Your task to perform on an android device: Search for the most popular books on Goodreads Image 0: 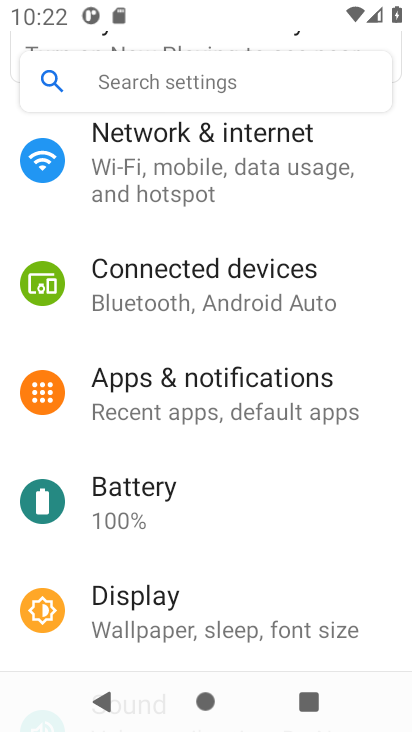
Step 0: press home button
Your task to perform on an android device: Search for the most popular books on Goodreads Image 1: 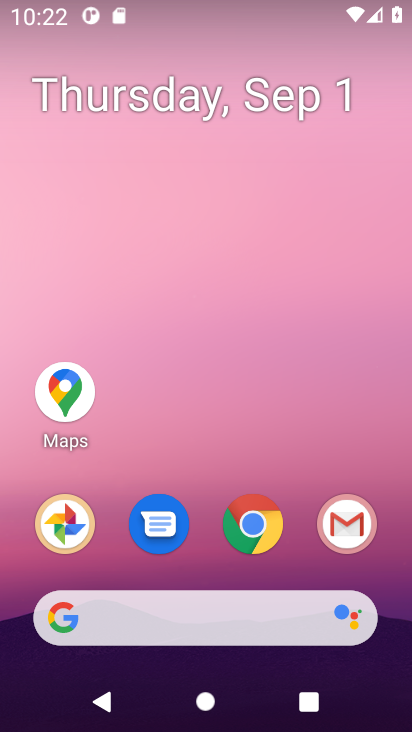
Step 1: drag from (390, 603) to (406, 78)
Your task to perform on an android device: Search for the most popular books on Goodreads Image 2: 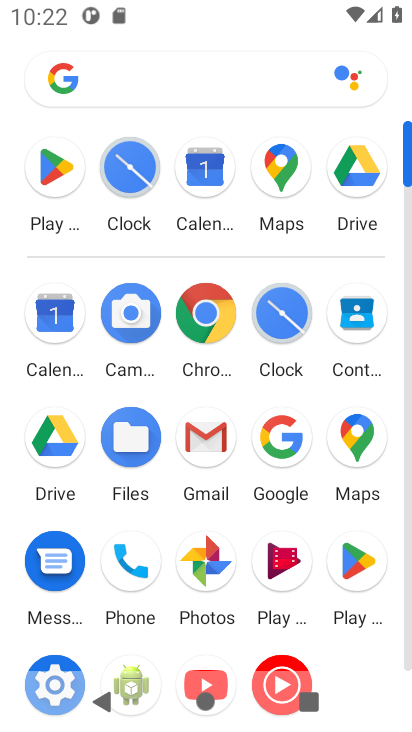
Step 2: click (207, 312)
Your task to perform on an android device: Search for the most popular books on Goodreads Image 3: 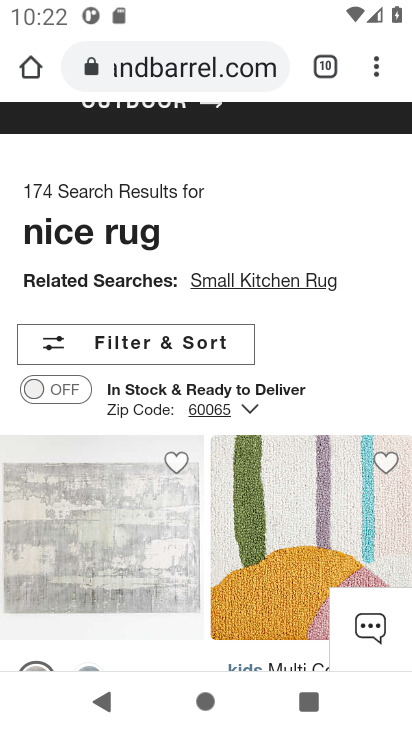
Step 3: click (376, 66)
Your task to perform on an android device: Search for the most popular books on Goodreads Image 4: 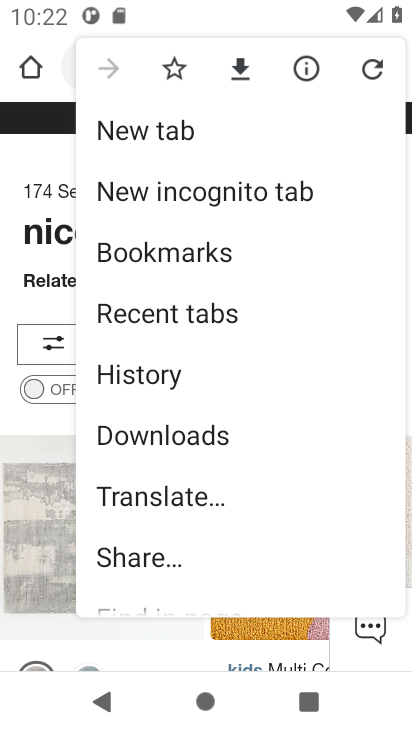
Step 4: click (181, 128)
Your task to perform on an android device: Search for the most popular books on Goodreads Image 5: 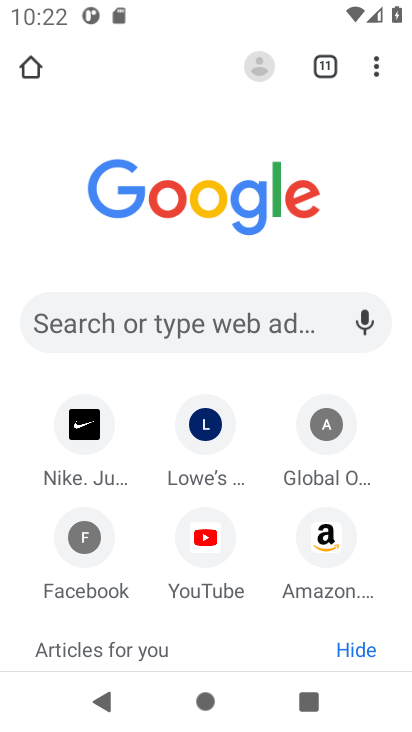
Step 5: click (219, 319)
Your task to perform on an android device: Search for the most popular books on Goodreads Image 6: 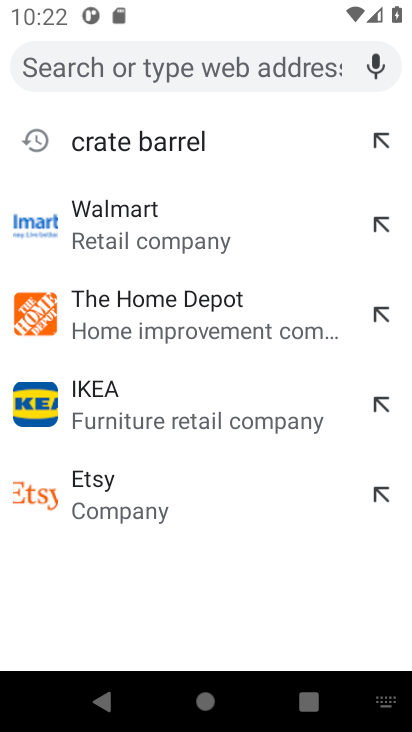
Step 6: press enter
Your task to perform on an android device: Search for the most popular books on Goodreads Image 7: 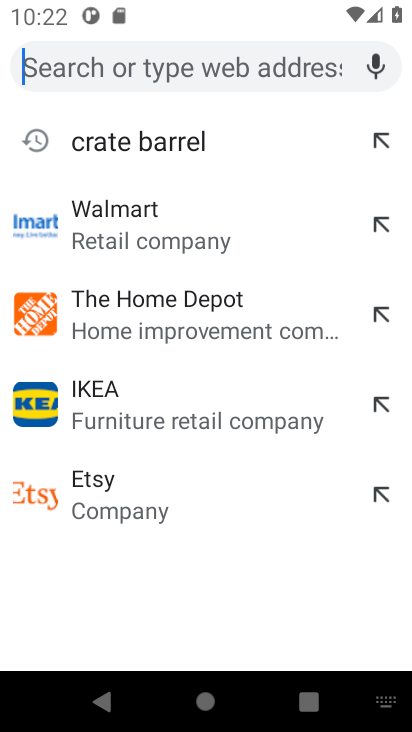
Step 7: type "goodreads"
Your task to perform on an android device: Search for the most popular books on Goodreads Image 8: 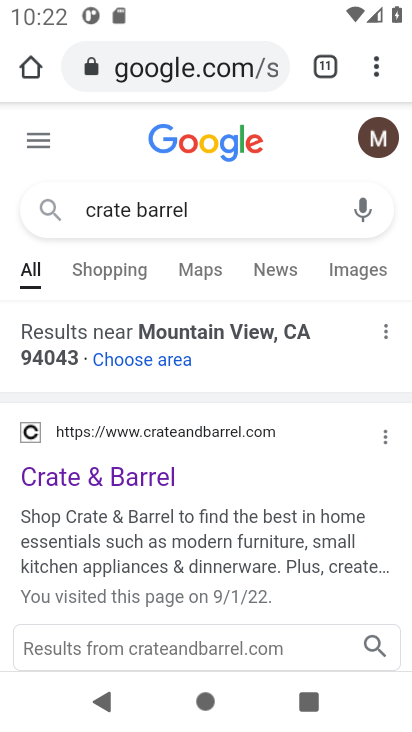
Step 8: click (213, 209)
Your task to perform on an android device: Search for the most popular books on Goodreads Image 9: 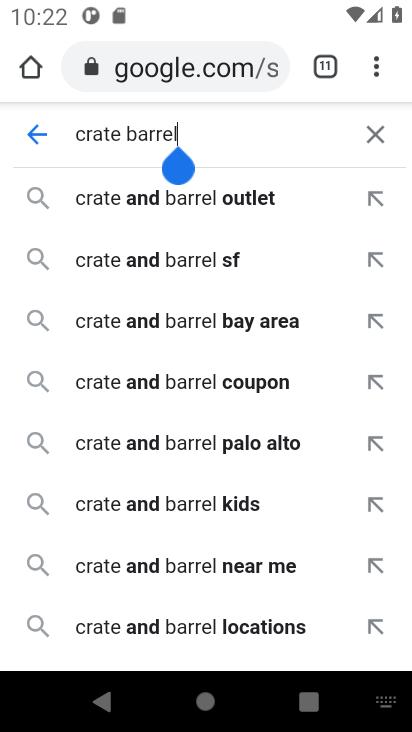
Step 9: click (376, 128)
Your task to perform on an android device: Search for the most popular books on Goodreads Image 10: 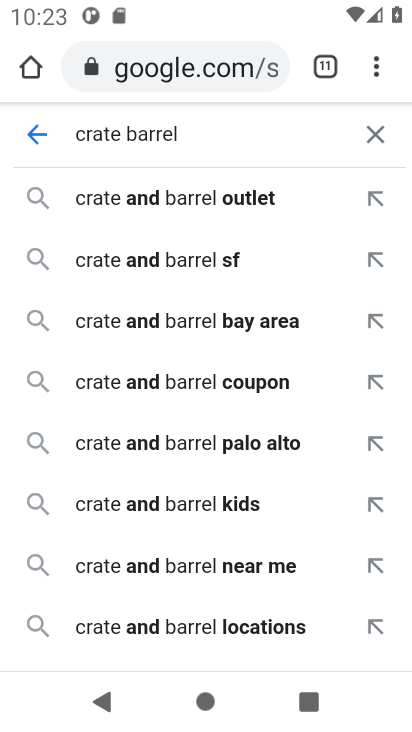
Step 10: click (372, 134)
Your task to perform on an android device: Search for the most popular books on Goodreads Image 11: 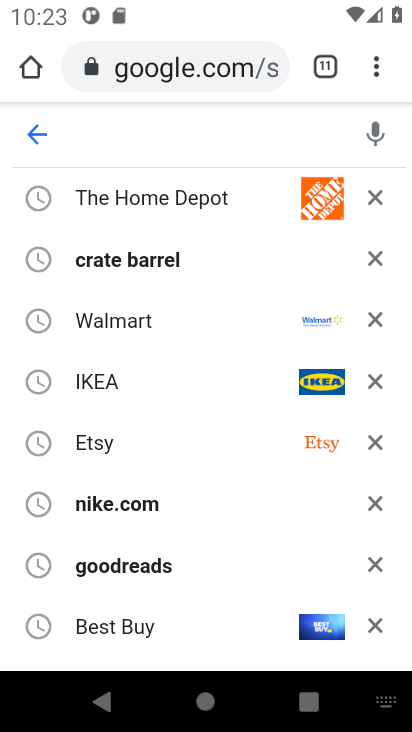
Step 11: click (128, 572)
Your task to perform on an android device: Search for the most popular books on Goodreads Image 12: 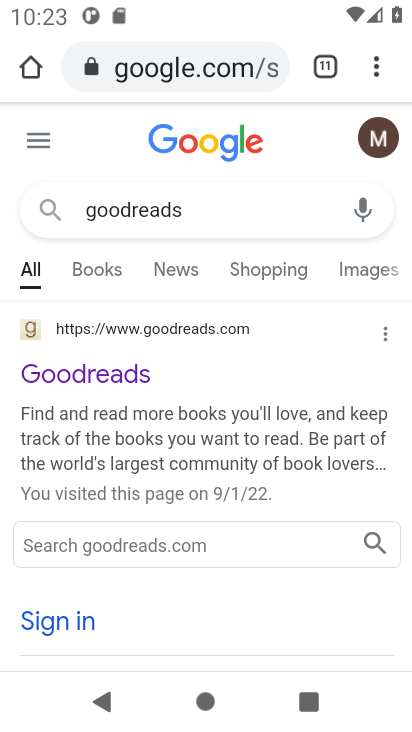
Step 12: click (93, 371)
Your task to perform on an android device: Search for the most popular books on Goodreads Image 13: 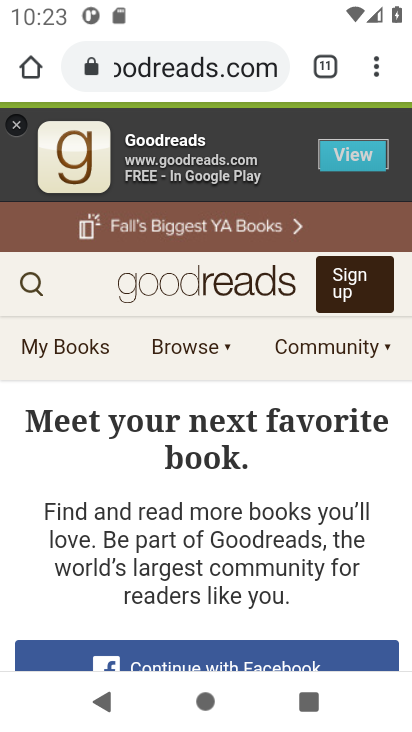
Step 13: click (32, 279)
Your task to perform on an android device: Search for the most popular books on Goodreads Image 14: 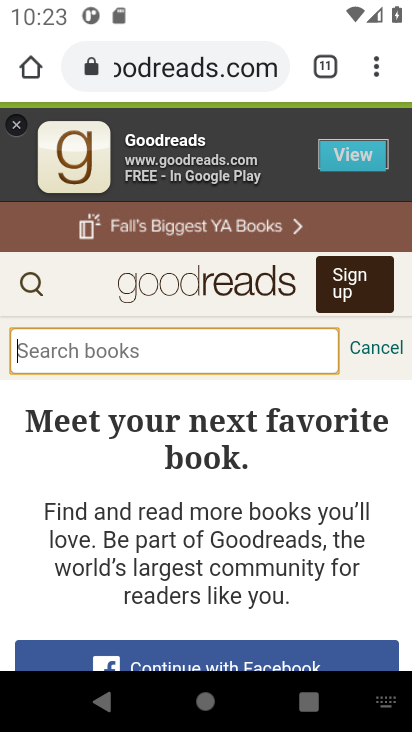
Step 14: click (104, 349)
Your task to perform on an android device: Search for the most popular books on Goodreads Image 15: 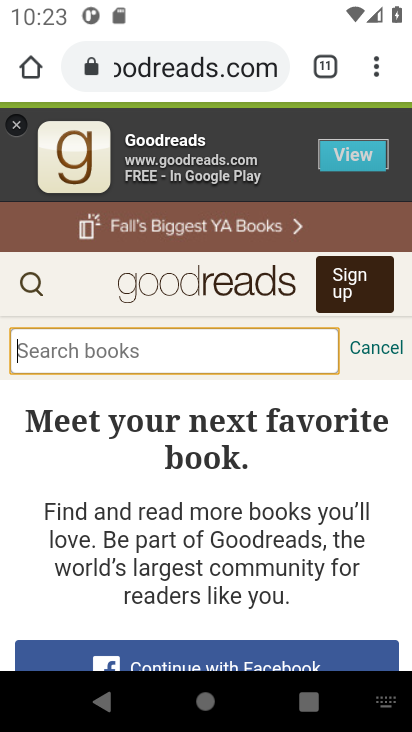
Step 15: type "most popular books"
Your task to perform on an android device: Search for the most popular books on Goodreads Image 16: 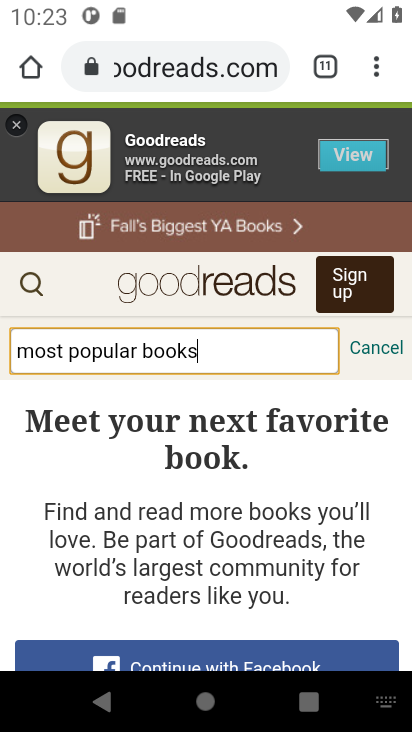
Step 16: press enter
Your task to perform on an android device: Search for the most popular books on Goodreads Image 17: 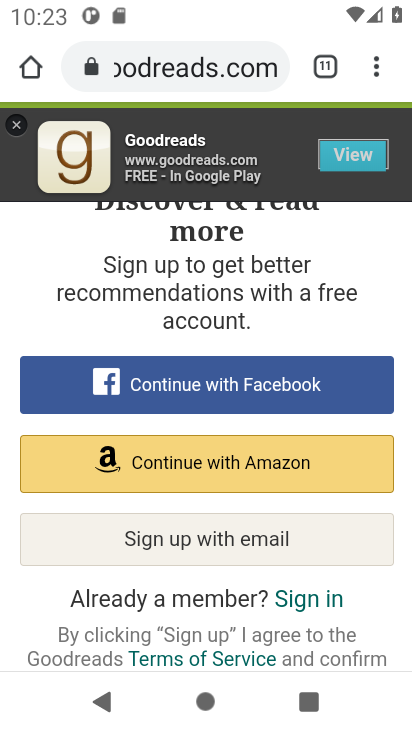
Step 17: task complete